Your task to perform on an android device: Go to eBay Image 0: 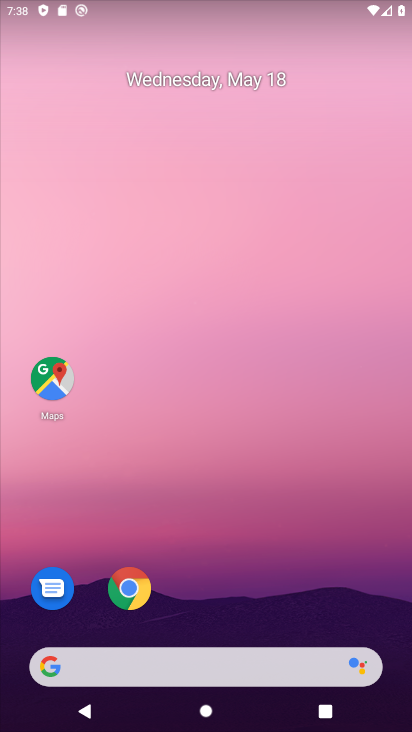
Step 0: drag from (226, 628) to (242, 31)
Your task to perform on an android device: Go to eBay Image 1: 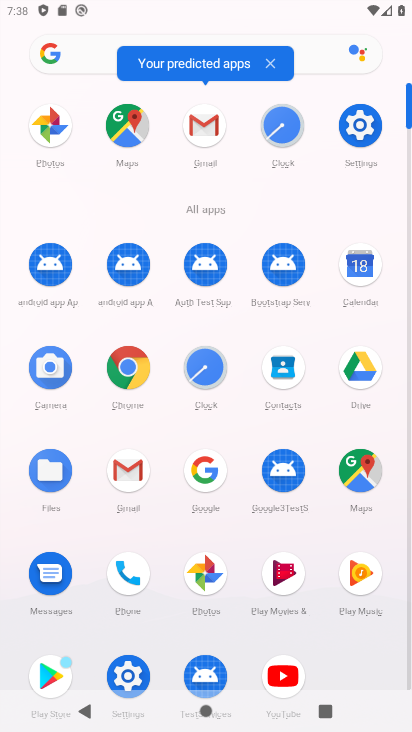
Step 1: click (142, 368)
Your task to perform on an android device: Go to eBay Image 2: 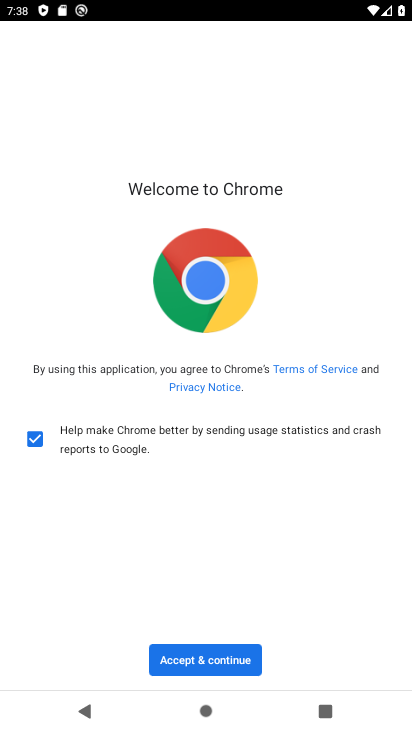
Step 2: click (225, 656)
Your task to perform on an android device: Go to eBay Image 3: 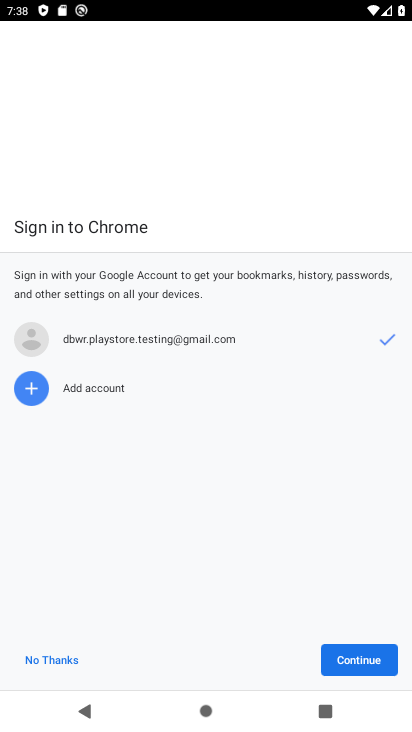
Step 3: click (364, 663)
Your task to perform on an android device: Go to eBay Image 4: 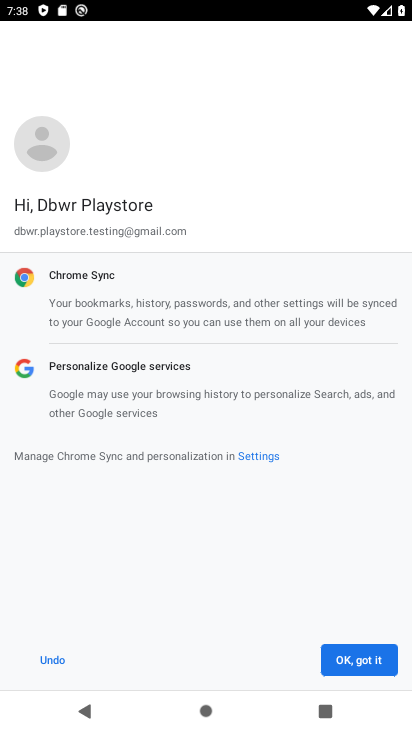
Step 4: click (364, 662)
Your task to perform on an android device: Go to eBay Image 5: 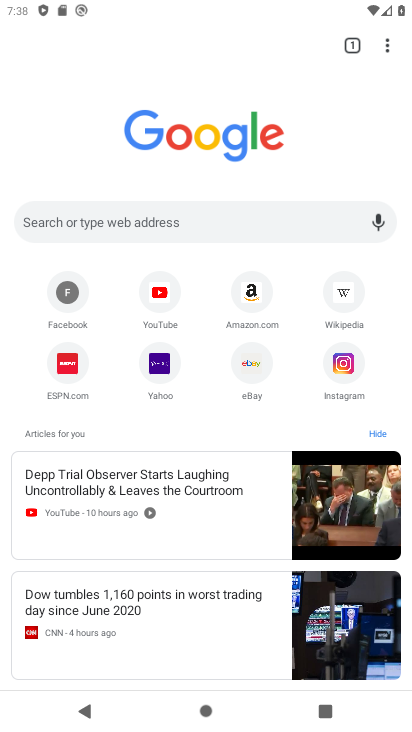
Step 5: click (259, 357)
Your task to perform on an android device: Go to eBay Image 6: 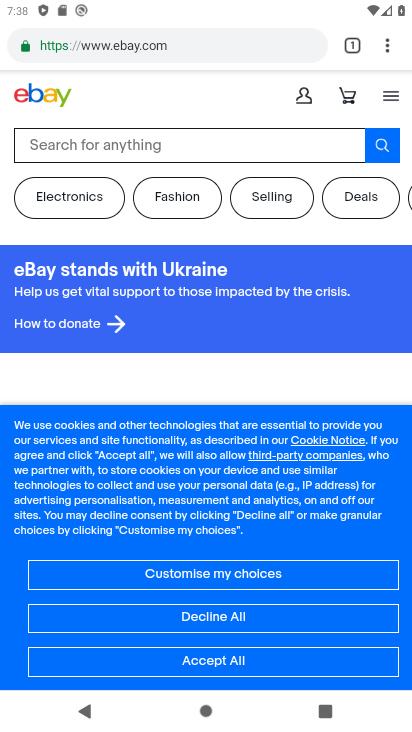
Step 6: task complete